Your task to perform on an android device: Open Google Chrome and open the bookmarks view Image 0: 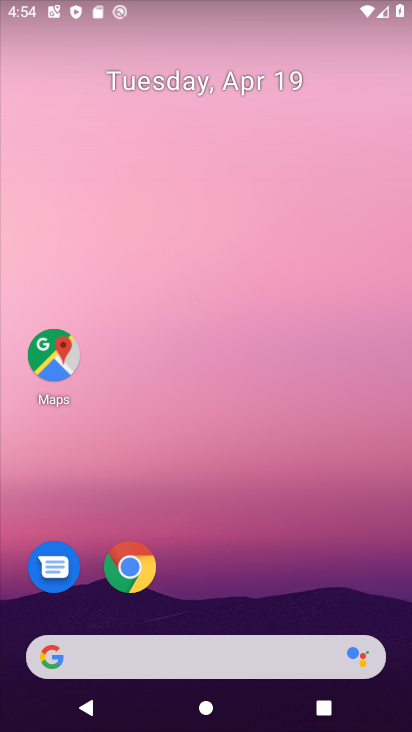
Step 0: click (120, 568)
Your task to perform on an android device: Open Google Chrome and open the bookmarks view Image 1: 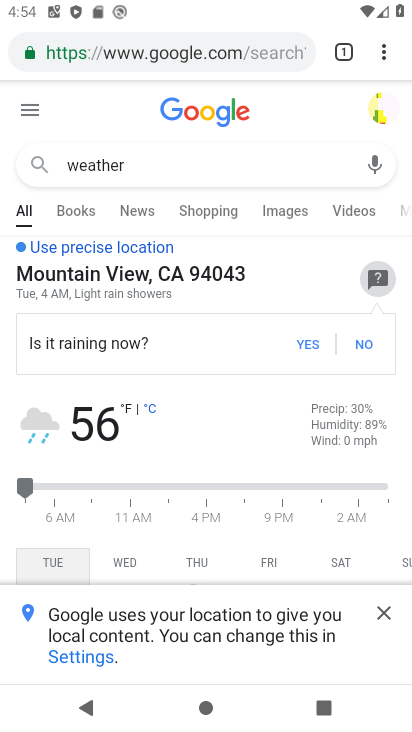
Step 1: task complete